Your task to perform on an android device: remove spam from my inbox in the gmail app Image 0: 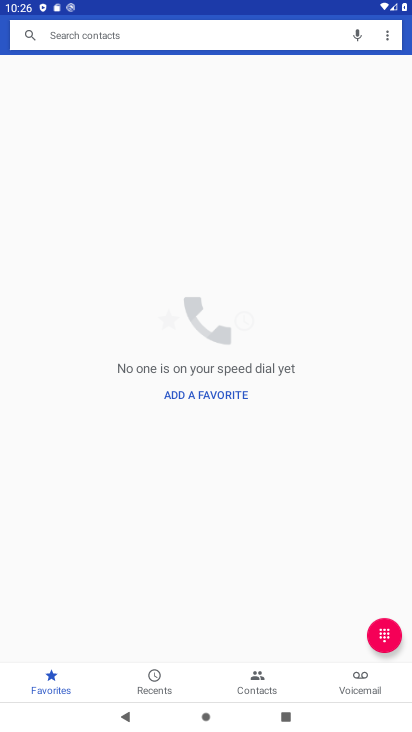
Step 0: press back button
Your task to perform on an android device: remove spam from my inbox in the gmail app Image 1: 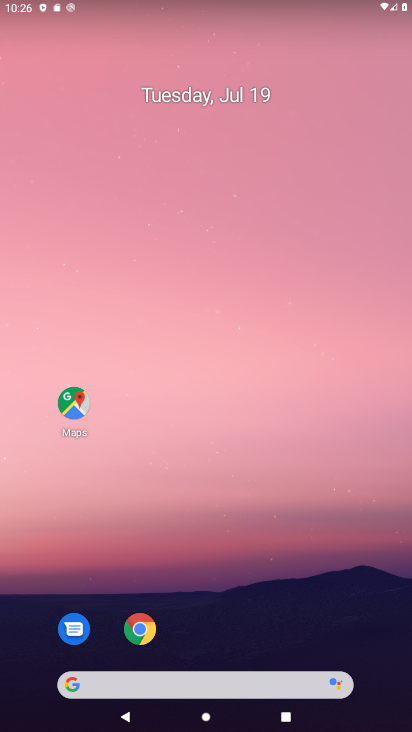
Step 1: drag from (252, 666) to (252, 316)
Your task to perform on an android device: remove spam from my inbox in the gmail app Image 2: 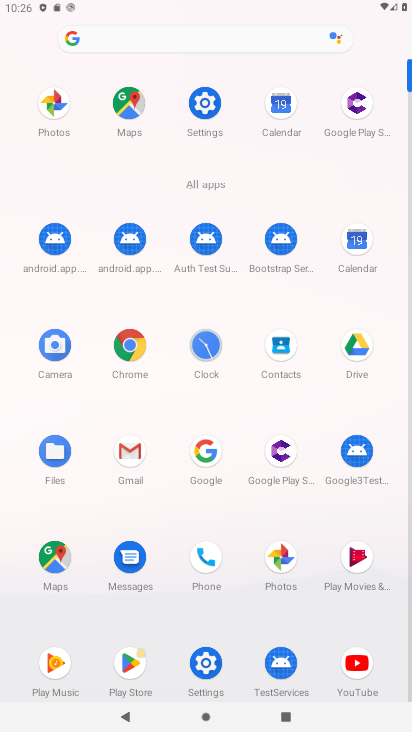
Step 2: click (134, 458)
Your task to perform on an android device: remove spam from my inbox in the gmail app Image 3: 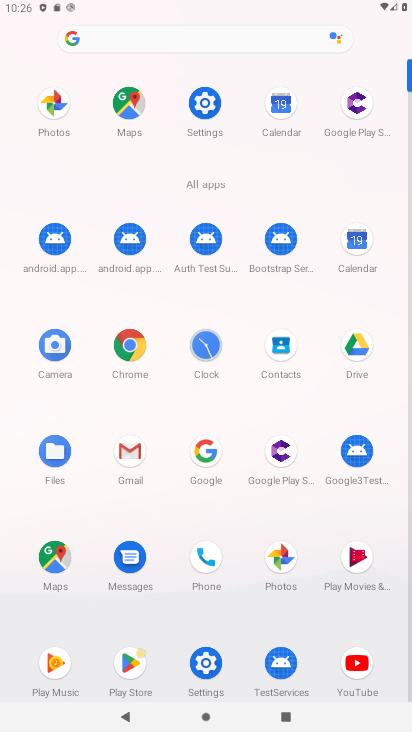
Step 3: click (134, 458)
Your task to perform on an android device: remove spam from my inbox in the gmail app Image 4: 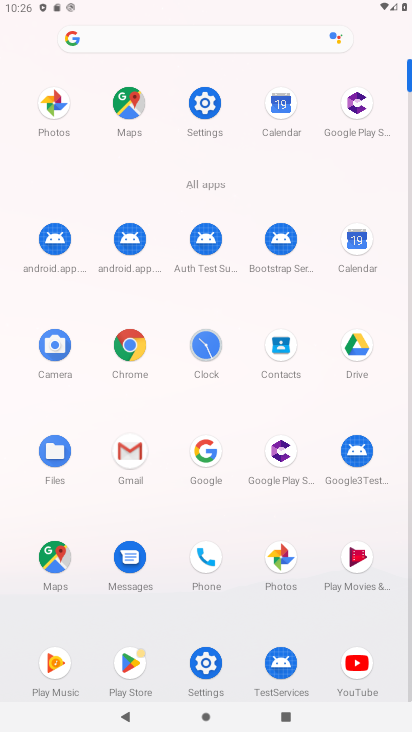
Step 4: click (140, 455)
Your task to perform on an android device: remove spam from my inbox in the gmail app Image 5: 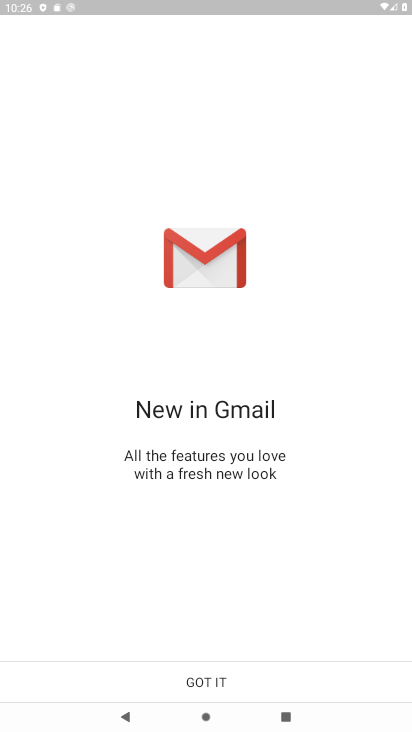
Step 5: click (209, 679)
Your task to perform on an android device: remove spam from my inbox in the gmail app Image 6: 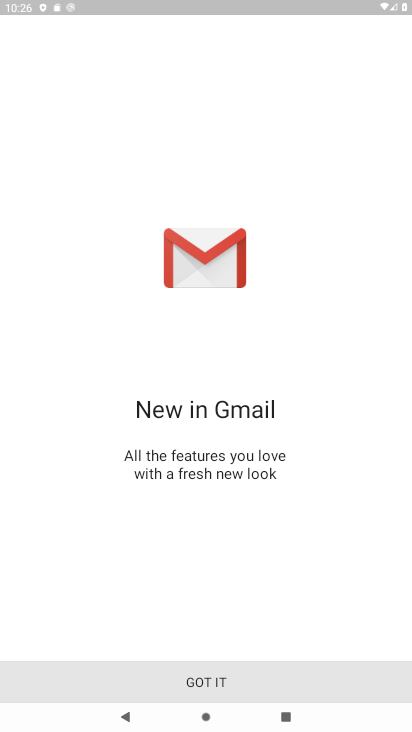
Step 6: click (219, 677)
Your task to perform on an android device: remove spam from my inbox in the gmail app Image 7: 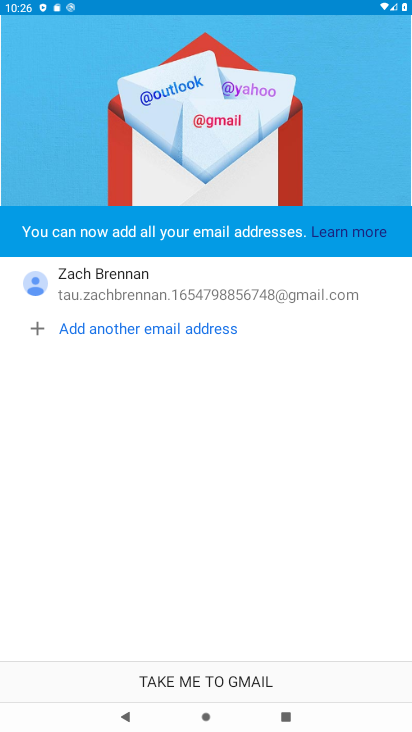
Step 7: click (219, 677)
Your task to perform on an android device: remove spam from my inbox in the gmail app Image 8: 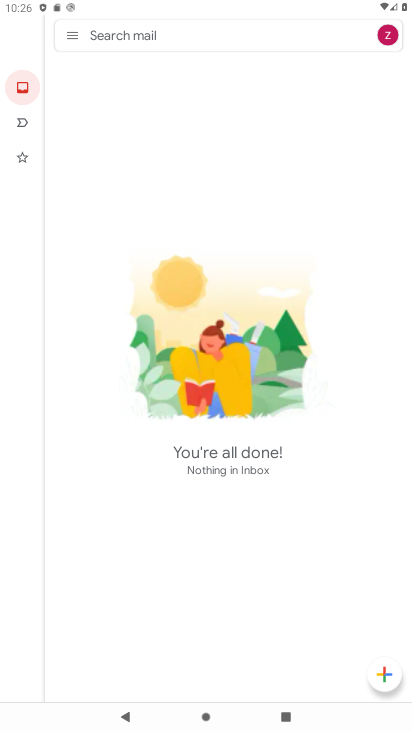
Step 8: click (65, 36)
Your task to perform on an android device: remove spam from my inbox in the gmail app Image 9: 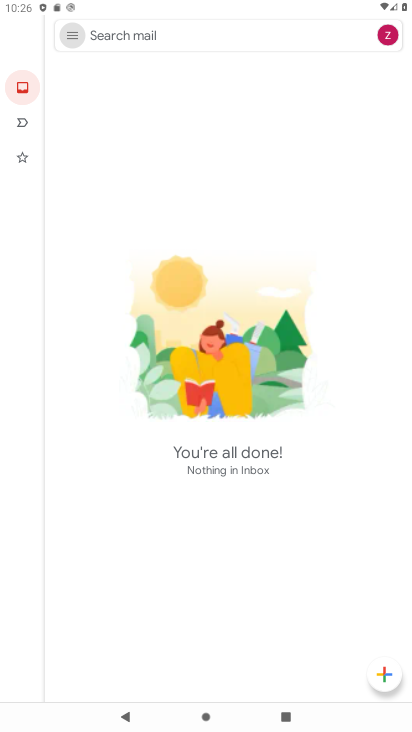
Step 9: click (65, 36)
Your task to perform on an android device: remove spam from my inbox in the gmail app Image 10: 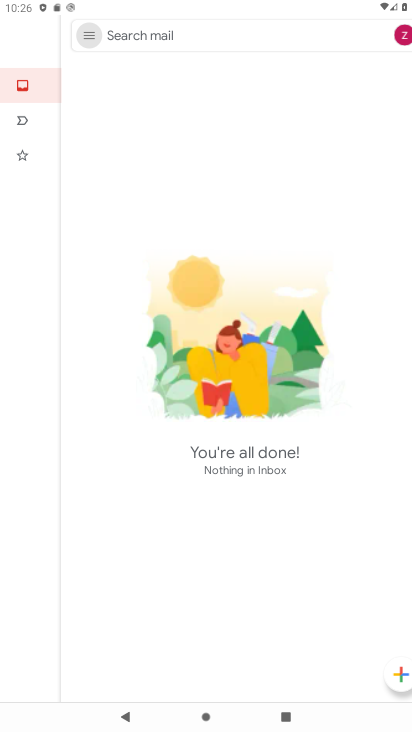
Step 10: click (65, 36)
Your task to perform on an android device: remove spam from my inbox in the gmail app Image 11: 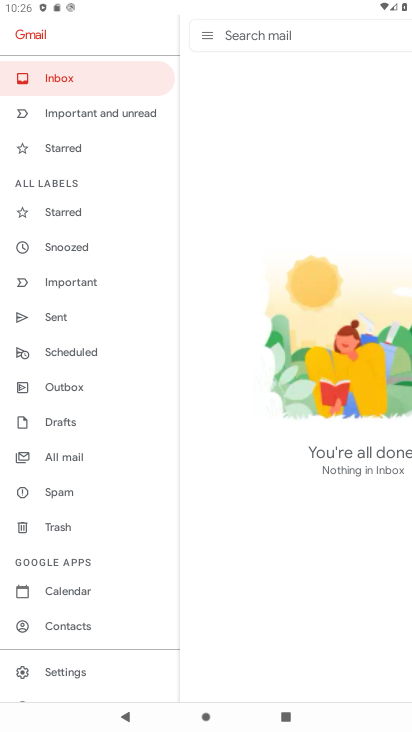
Step 11: click (64, 497)
Your task to perform on an android device: remove spam from my inbox in the gmail app Image 12: 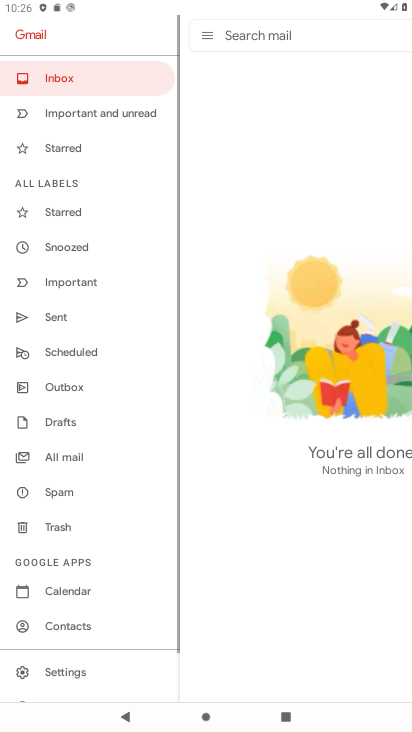
Step 12: click (64, 497)
Your task to perform on an android device: remove spam from my inbox in the gmail app Image 13: 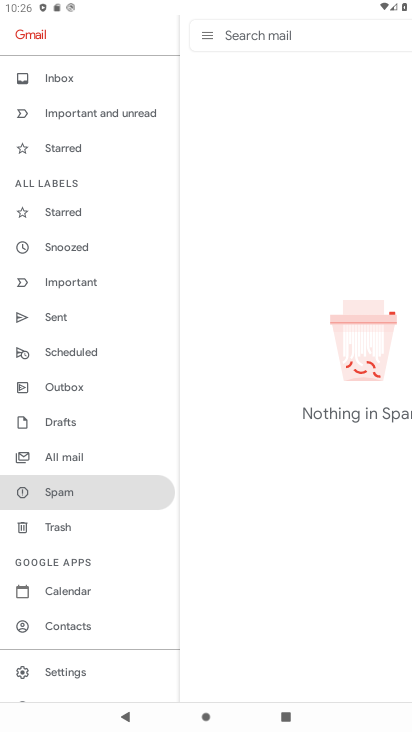
Step 13: click (58, 489)
Your task to perform on an android device: remove spam from my inbox in the gmail app Image 14: 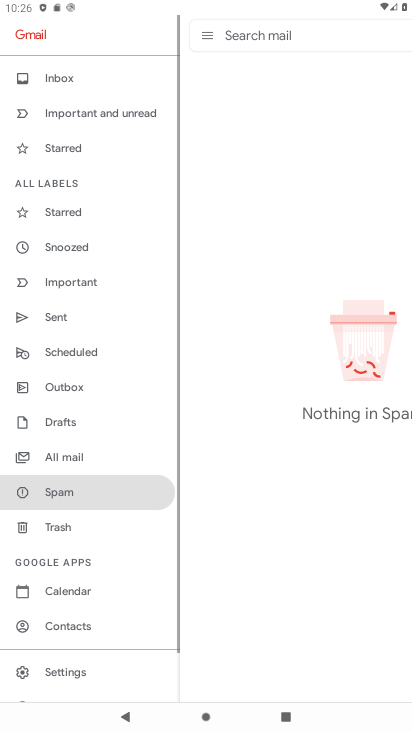
Step 14: click (57, 488)
Your task to perform on an android device: remove spam from my inbox in the gmail app Image 15: 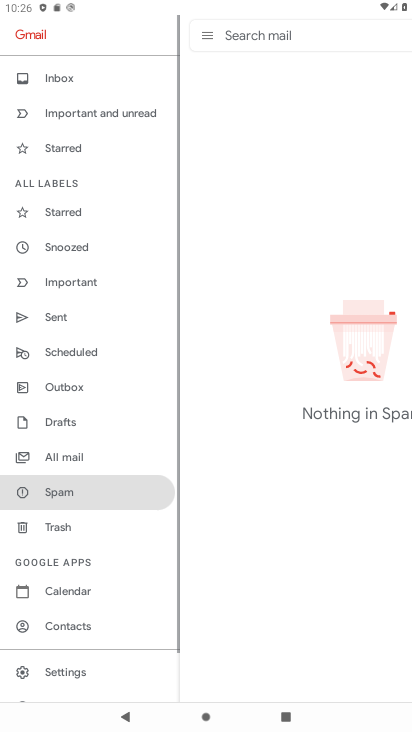
Step 15: click (62, 488)
Your task to perform on an android device: remove spam from my inbox in the gmail app Image 16: 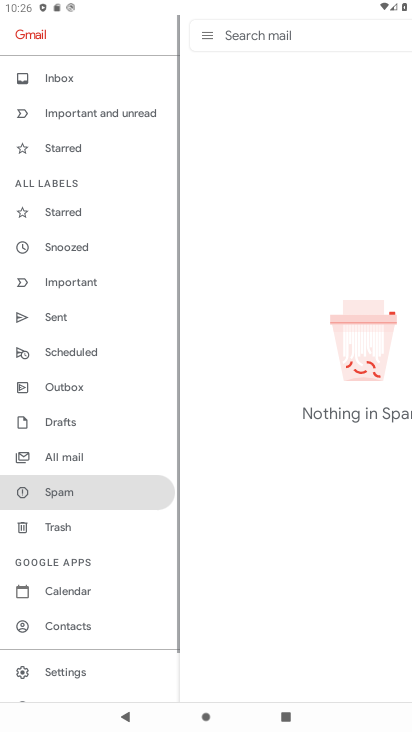
Step 16: click (63, 488)
Your task to perform on an android device: remove spam from my inbox in the gmail app Image 17: 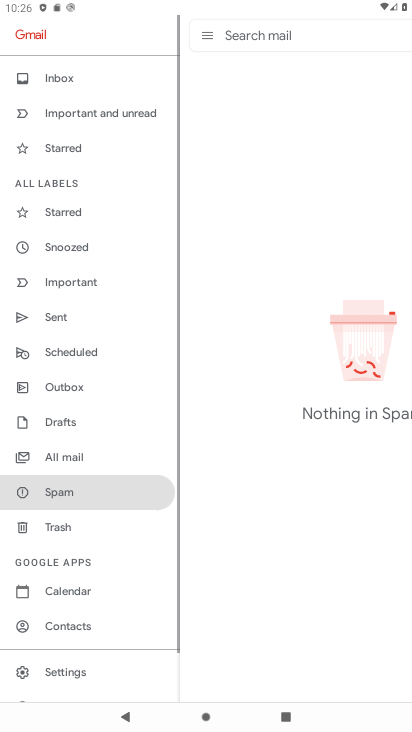
Step 17: click (64, 489)
Your task to perform on an android device: remove spam from my inbox in the gmail app Image 18: 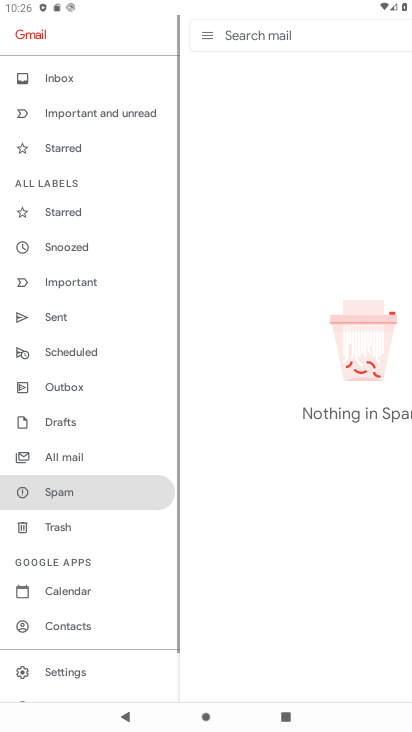
Step 18: click (65, 490)
Your task to perform on an android device: remove spam from my inbox in the gmail app Image 19: 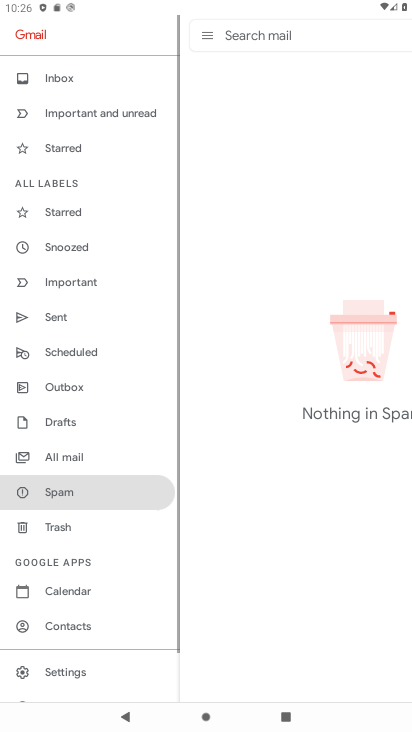
Step 19: task complete